Your task to perform on an android device: Go to Google maps Image 0: 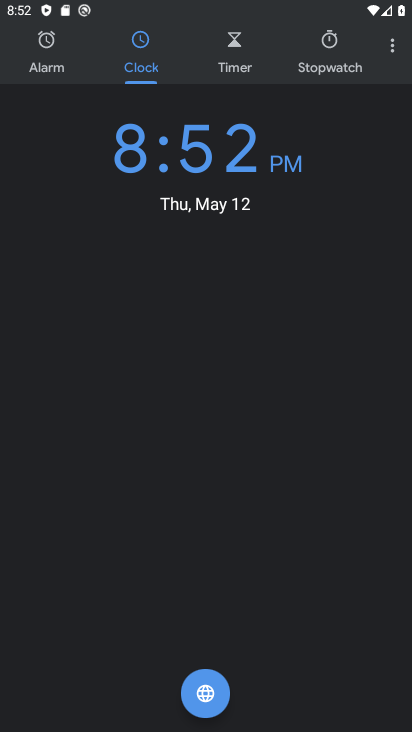
Step 0: press home button
Your task to perform on an android device: Go to Google maps Image 1: 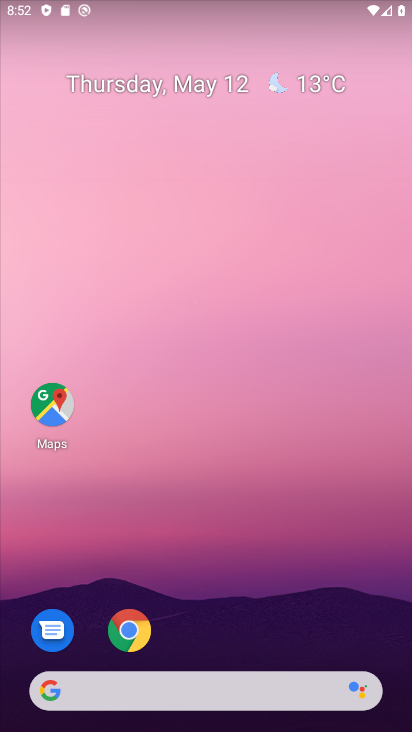
Step 1: click (51, 399)
Your task to perform on an android device: Go to Google maps Image 2: 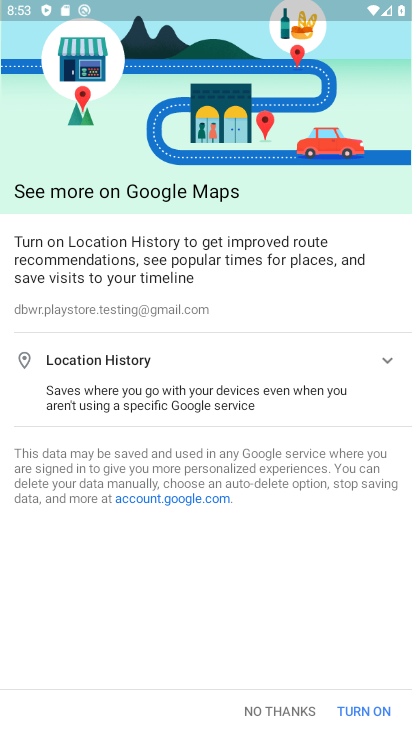
Step 2: click (376, 707)
Your task to perform on an android device: Go to Google maps Image 3: 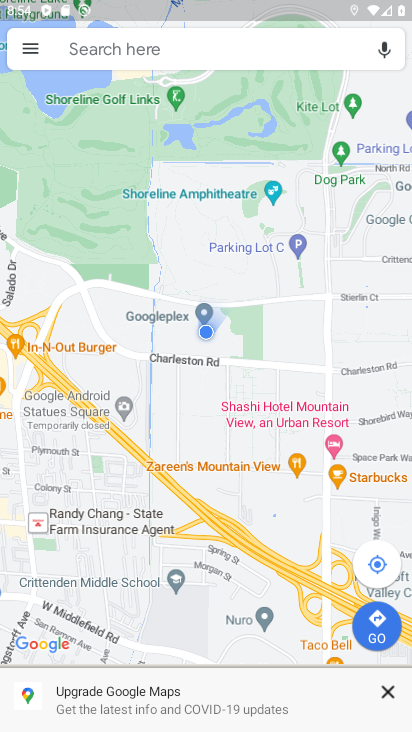
Step 3: task complete